Your task to perform on an android device: Open calendar and show me the first week of next month Image 0: 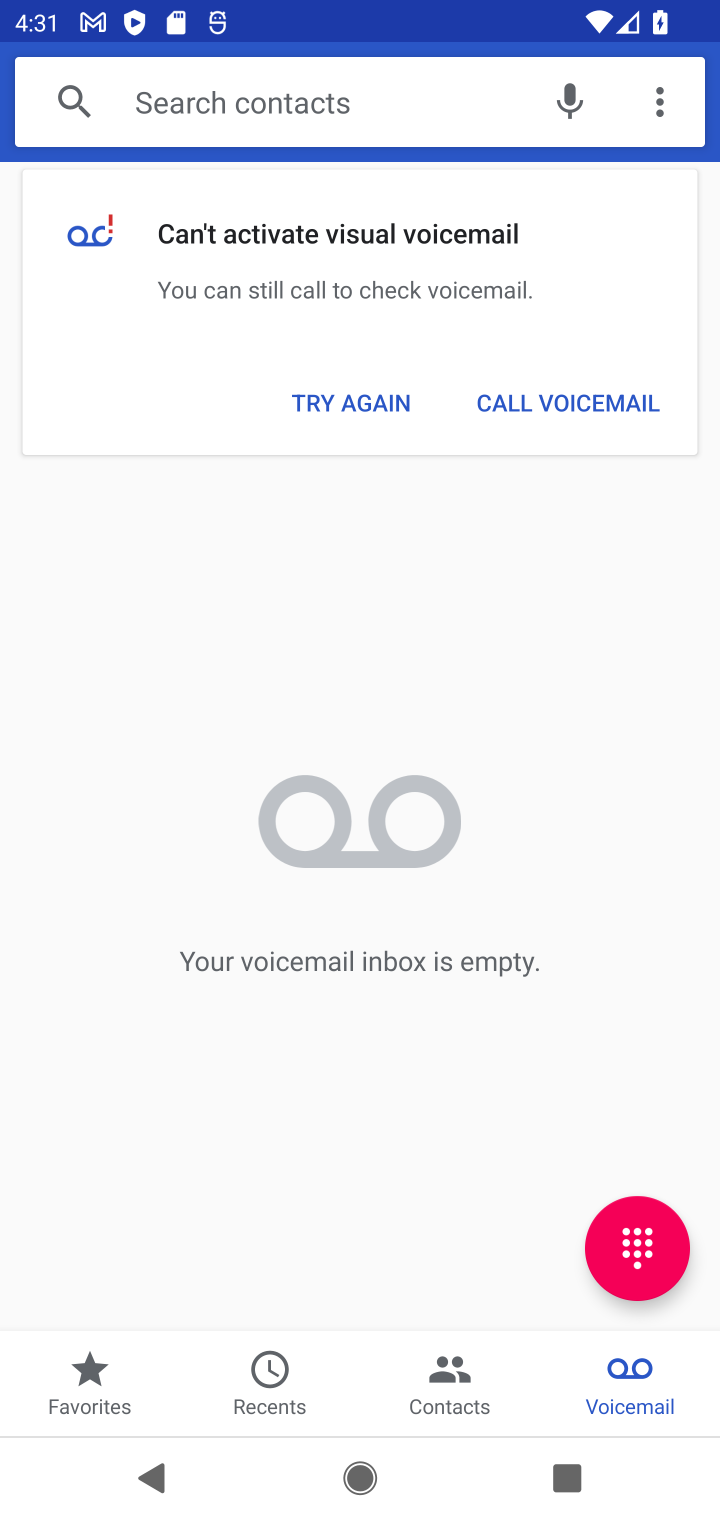
Step 0: press home button
Your task to perform on an android device: Open calendar and show me the first week of next month Image 1: 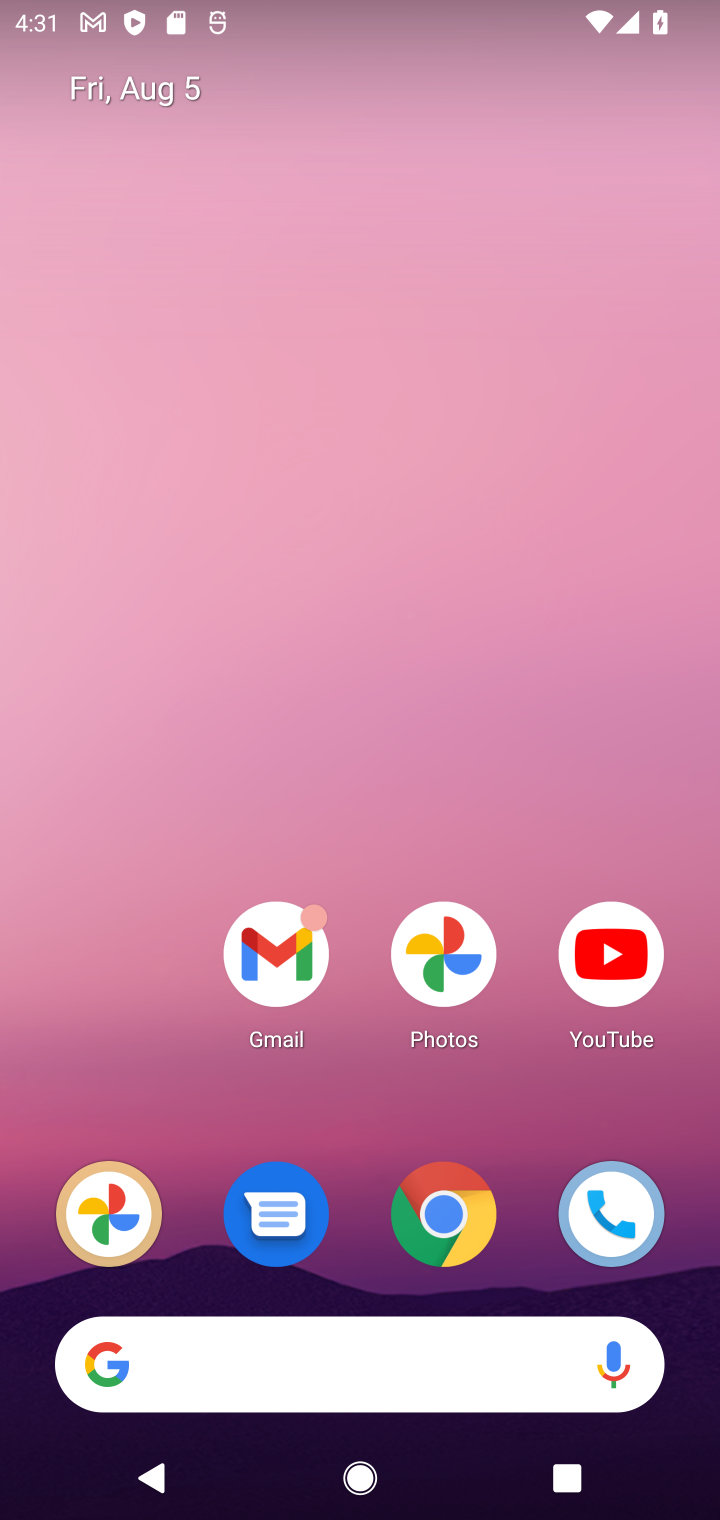
Step 1: drag from (144, 1032) to (268, 0)
Your task to perform on an android device: Open calendar and show me the first week of next month Image 2: 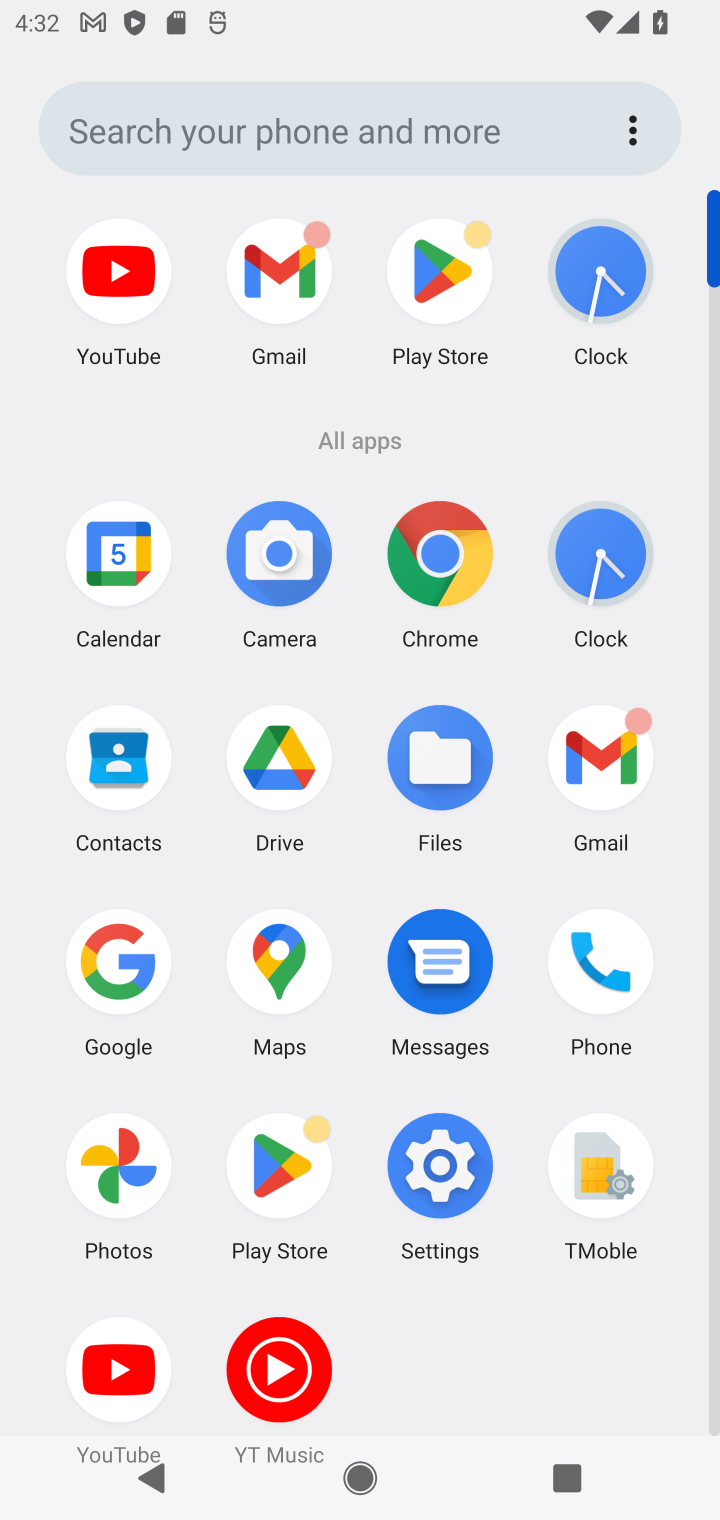
Step 2: click (143, 554)
Your task to perform on an android device: Open calendar and show me the first week of next month Image 3: 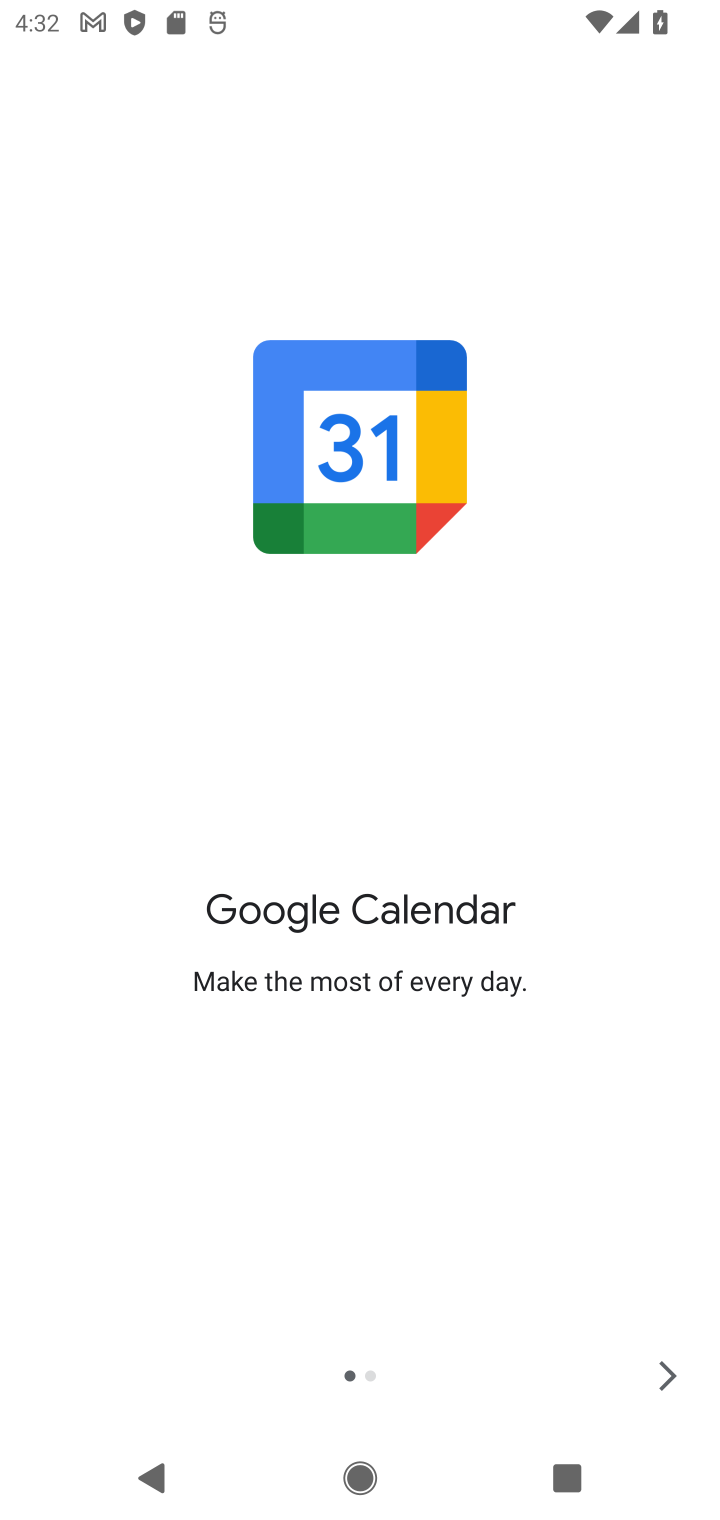
Step 3: click (650, 1359)
Your task to perform on an android device: Open calendar and show me the first week of next month Image 4: 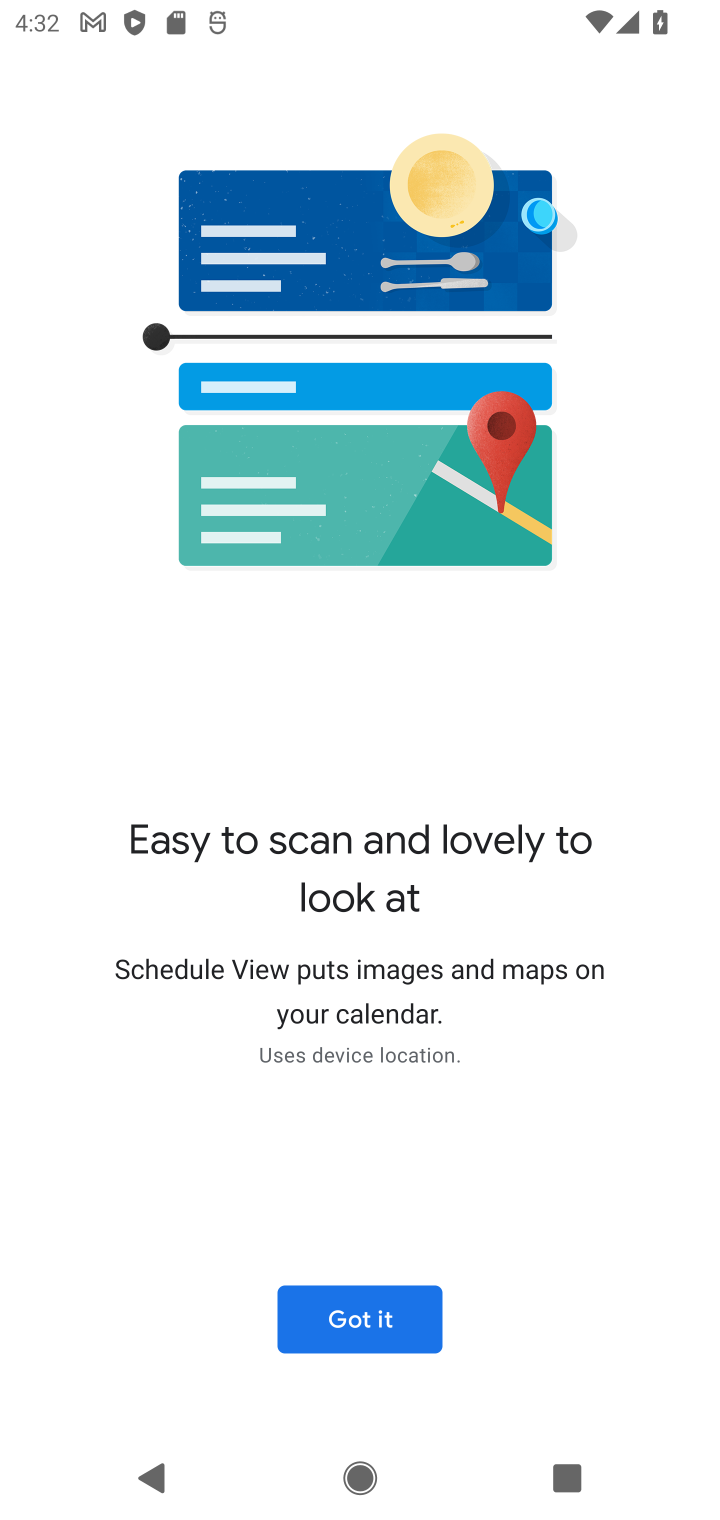
Step 4: click (433, 1320)
Your task to perform on an android device: Open calendar and show me the first week of next month Image 5: 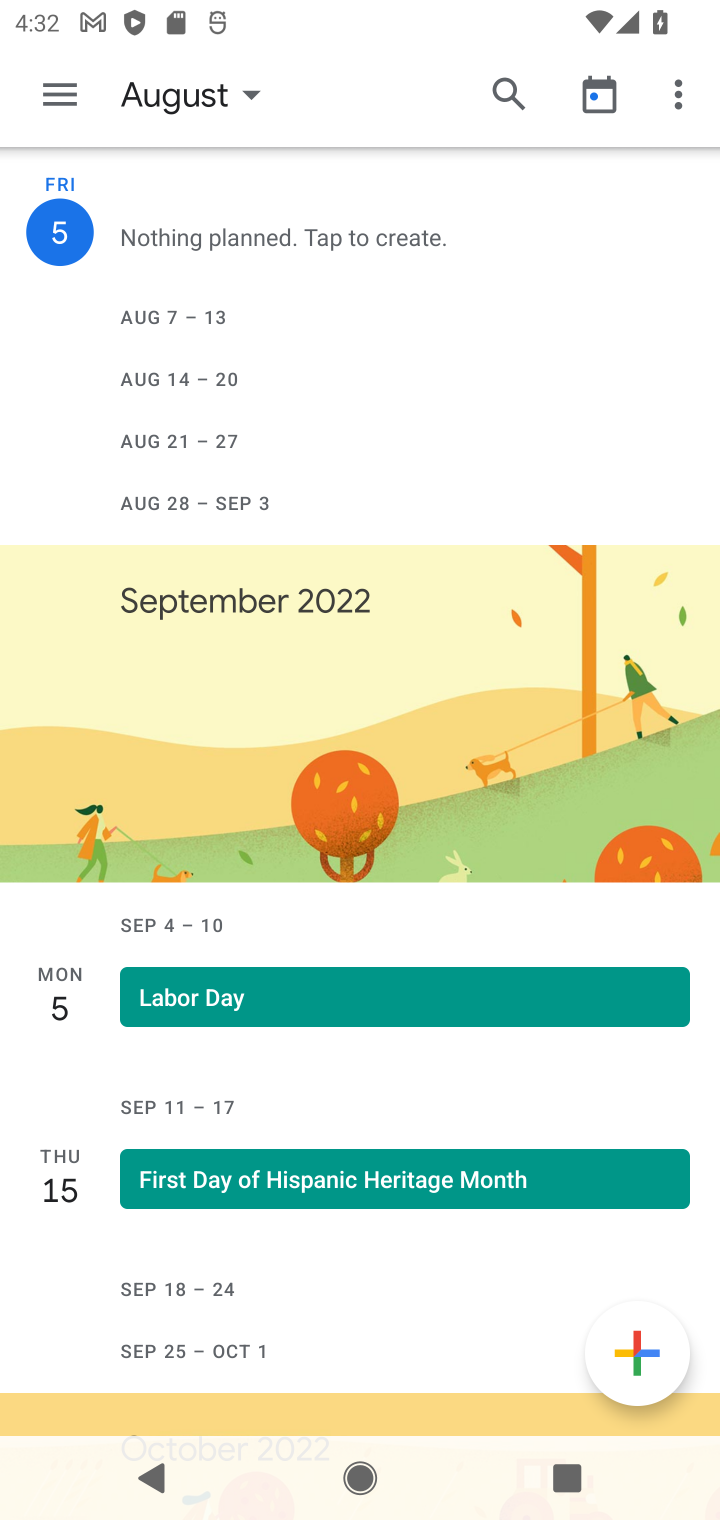
Step 5: click (171, 916)
Your task to perform on an android device: Open calendar and show me the first week of next month Image 6: 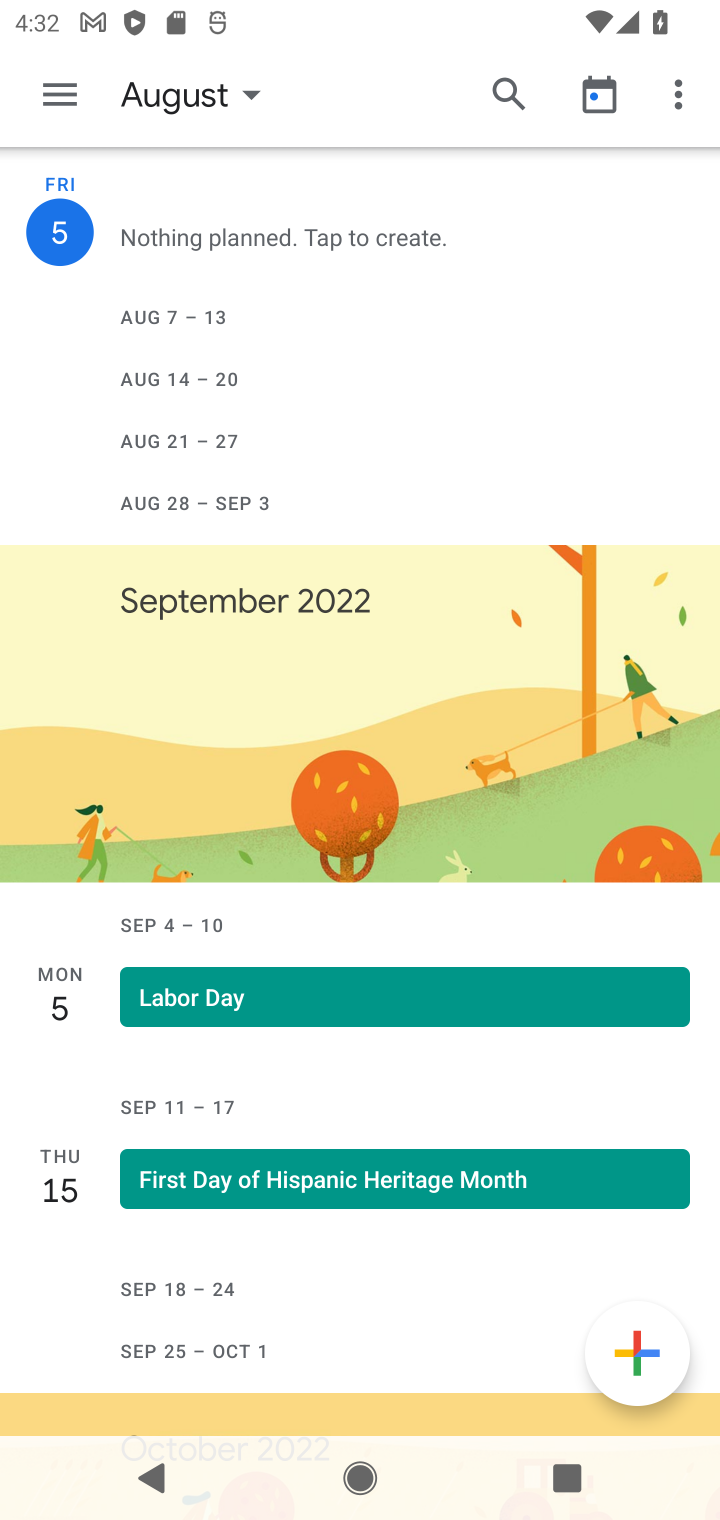
Step 6: click (63, 82)
Your task to perform on an android device: Open calendar and show me the first week of next month Image 7: 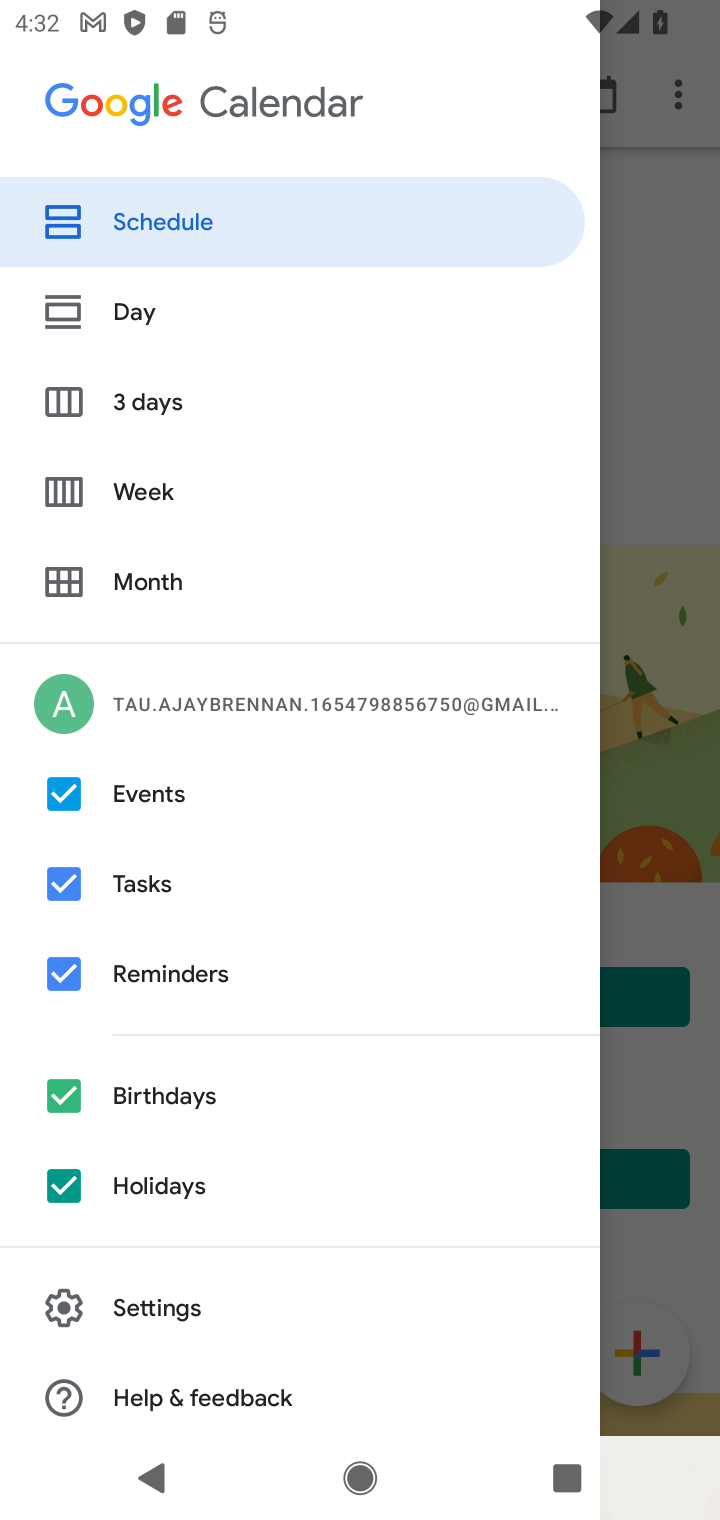
Step 7: click (116, 566)
Your task to perform on an android device: Open calendar and show me the first week of next month Image 8: 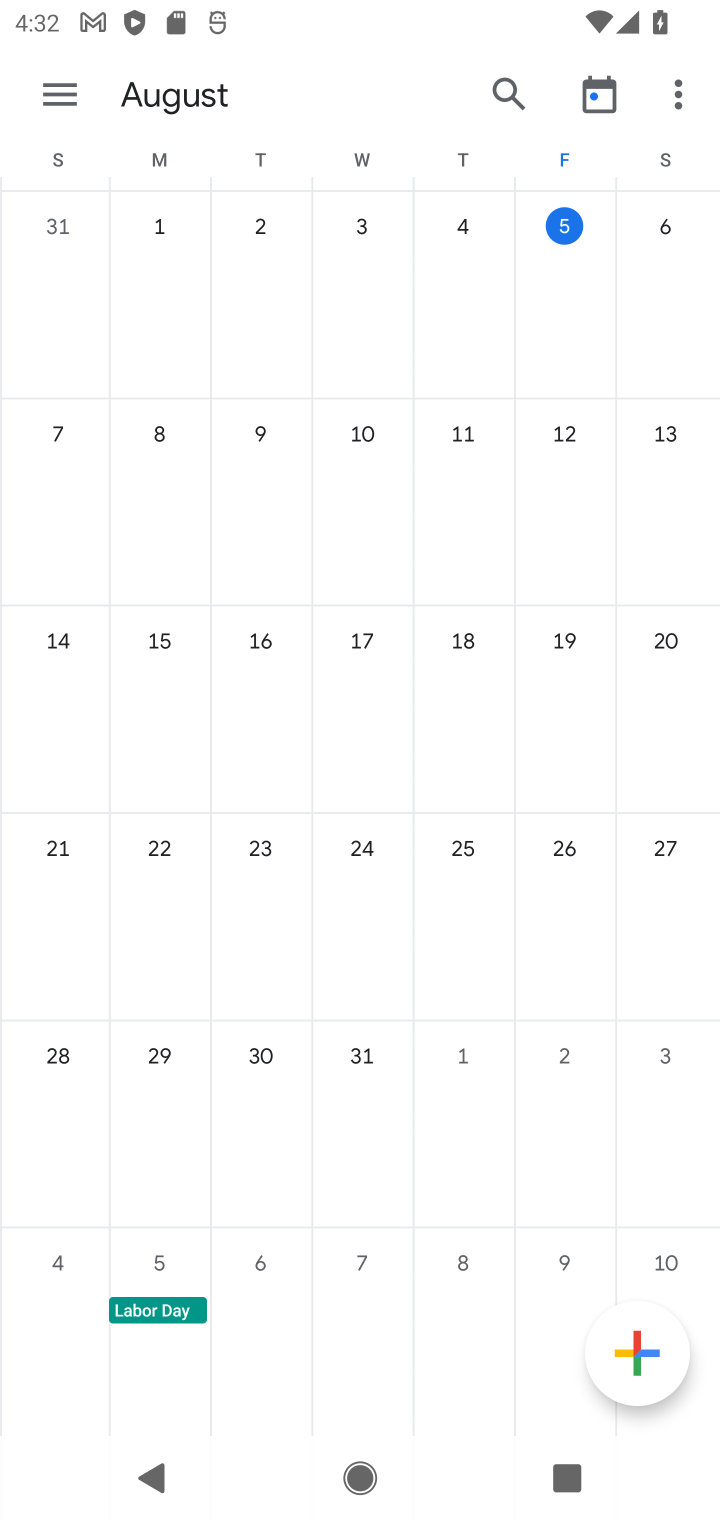
Step 8: drag from (662, 773) to (0, 522)
Your task to perform on an android device: Open calendar and show me the first week of next month Image 9: 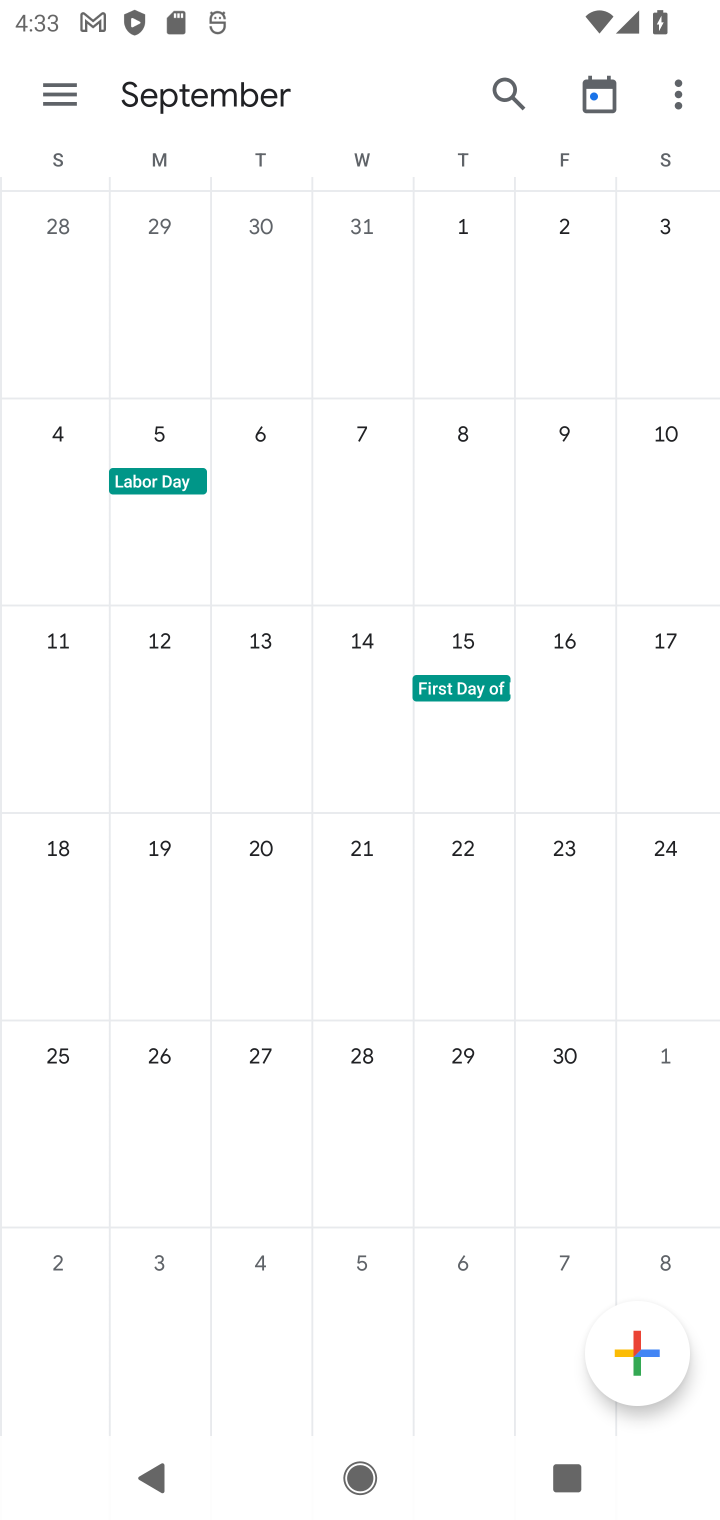
Step 9: click (66, 443)
Your task to perform on an android device: Open calendar and show me the first week of next month Image 10: 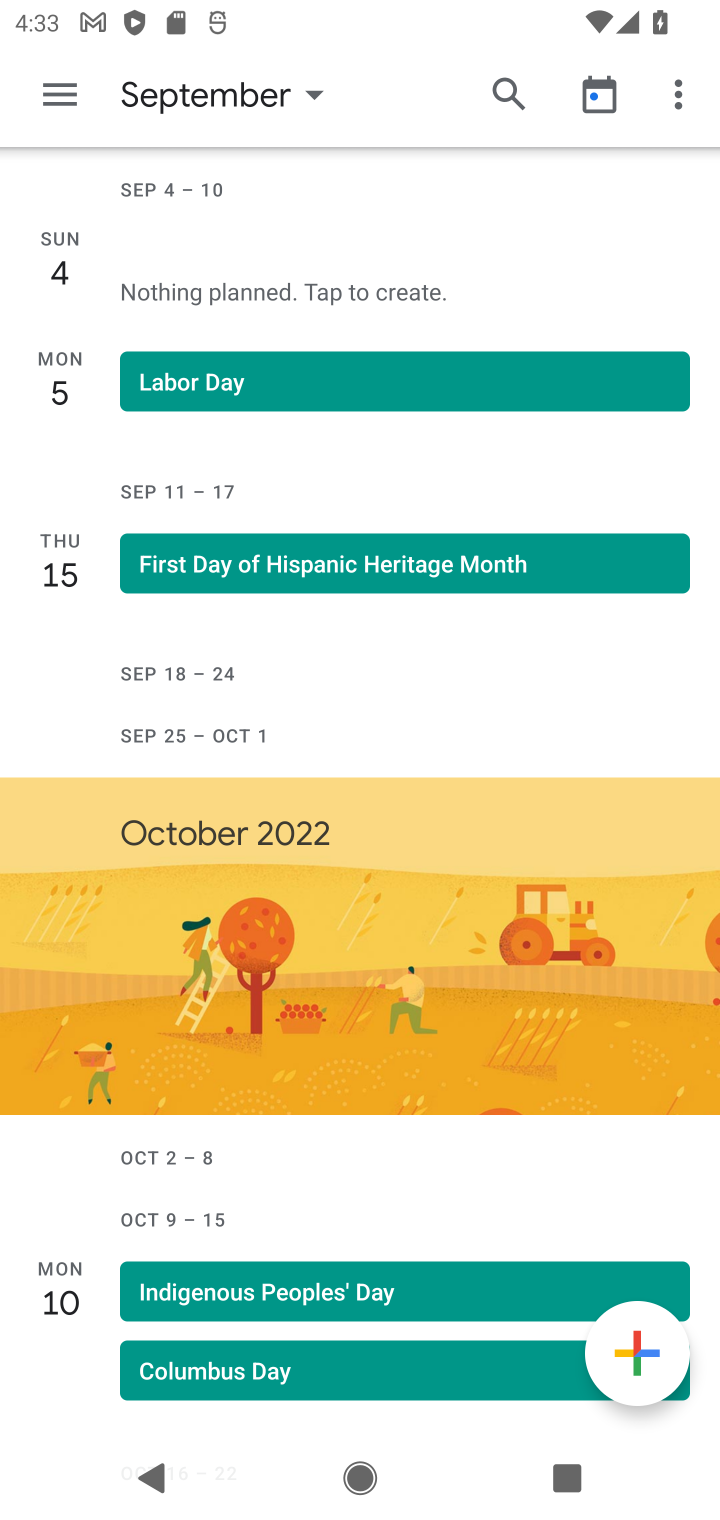
Step 10: click (63, 91)
Your task to perform on an android device: Open calendar and show me the first week of next month Image 11: 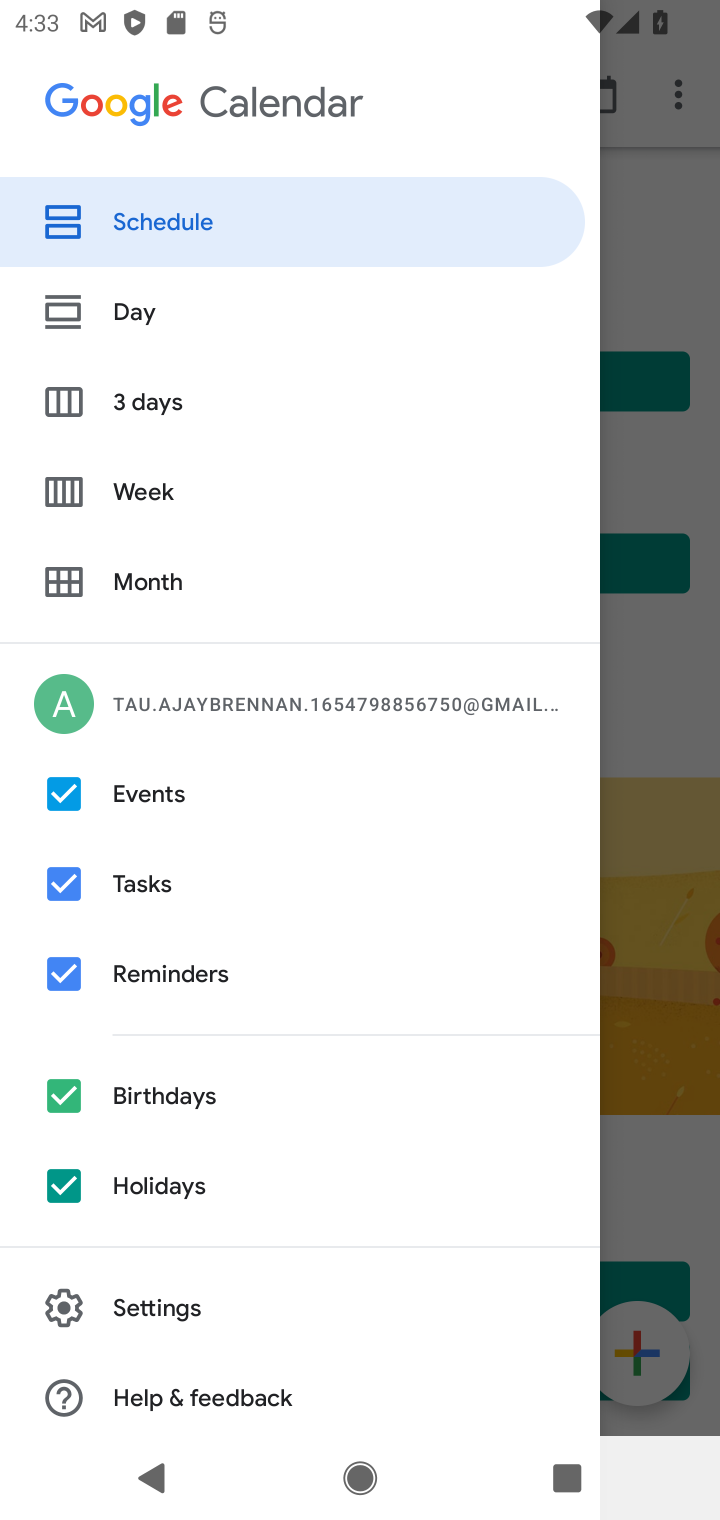
Step 11: click (69, 492)
Your task to perform on an android device: Open calendar and show me the first week of next month Image 12: 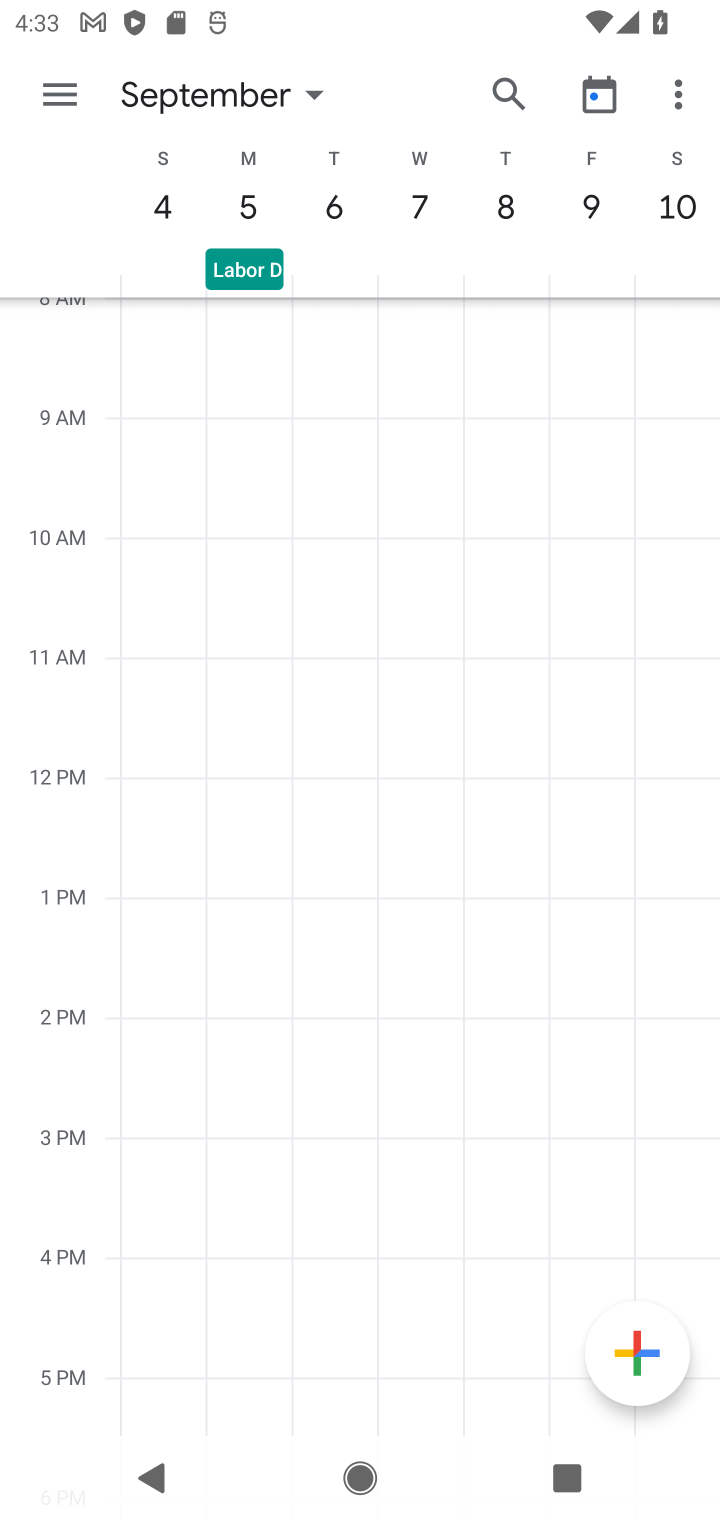
Step 12: task complete